Your task to perform on an android device: Go to accessibility settings Image 0: 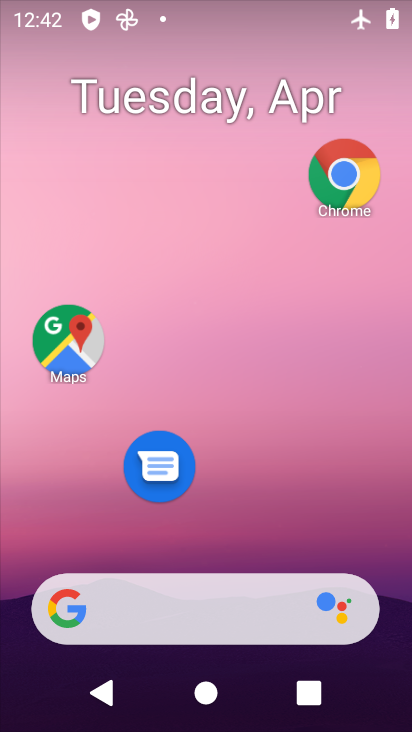
Step 0: drag from (258, 695) to (234, 125)
Your task to perform on an android device: Go to accessibility settings Image 1: 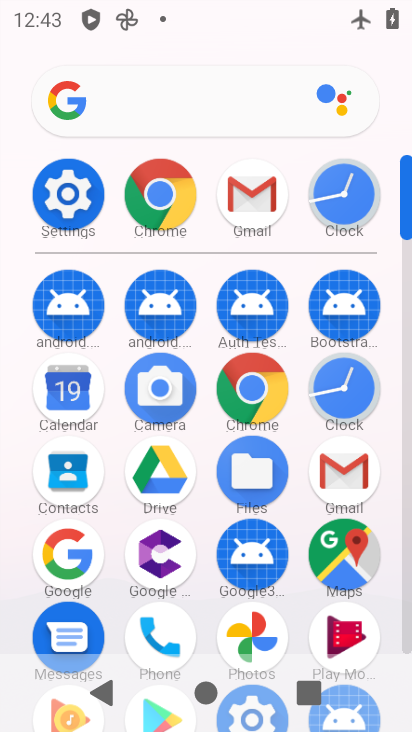
Step 1: click (73, 220)
Your task to perform on an android device: Go to accessibility settings Image 2: 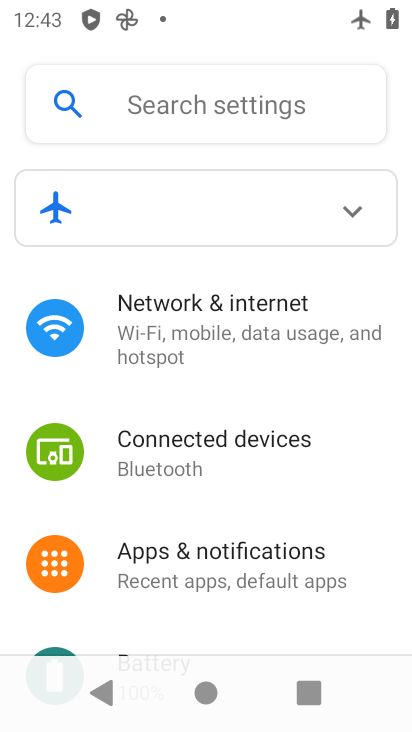
Step 2: drag from (180, 535) to (144, 254)
Your task to perform on an android device: Go to accessibility settings Image 3: 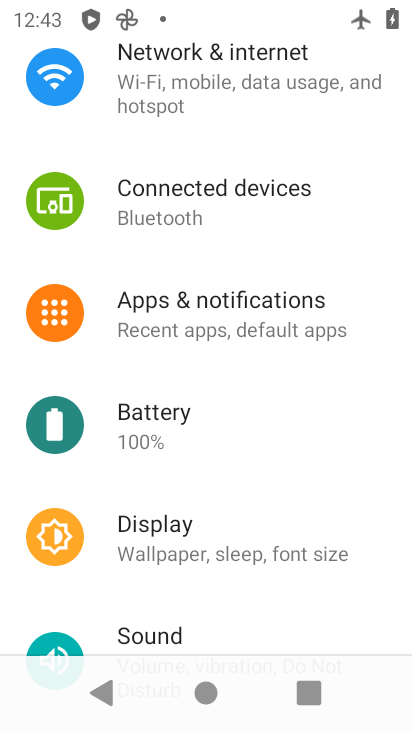
Step 3: drag from (159, 490) to (131, 309)
Your task to perform on an android device: Go to accessibility settings Image 4: 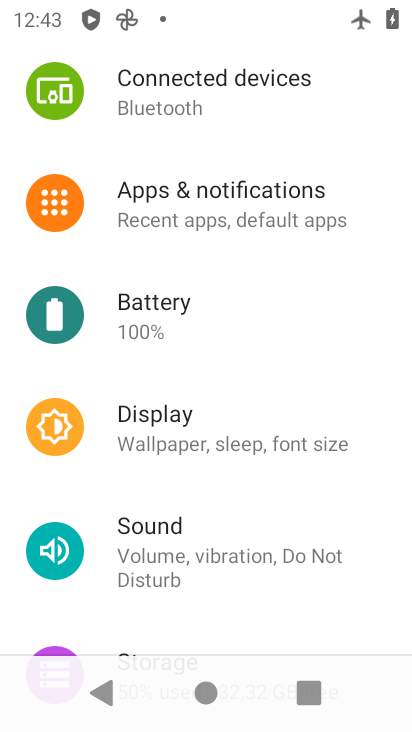
Step 4: drag from (182, 537) to (189, 163)
Your task to perform on an android device: Go to accessibility settings Image 5: 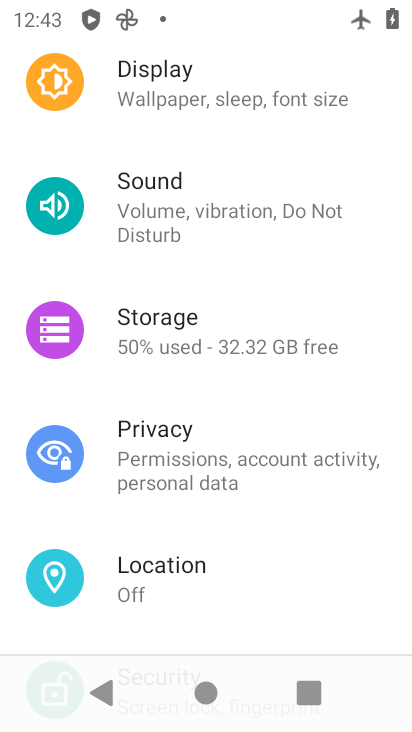
Step 5: drag from (178, 493) to (151, 227)
Your task to perform on an android device: Go to accessibility settings Image 6: 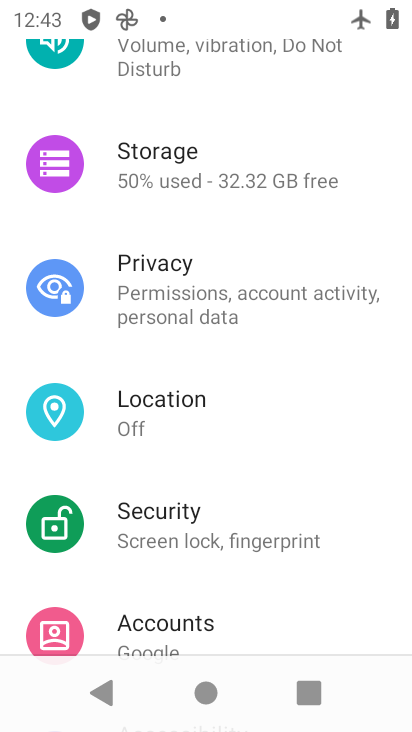
Step 6: drag from (172, 522) to (127, 298)
Your task to perform on an android device: Go to accessibility settings Image 7: 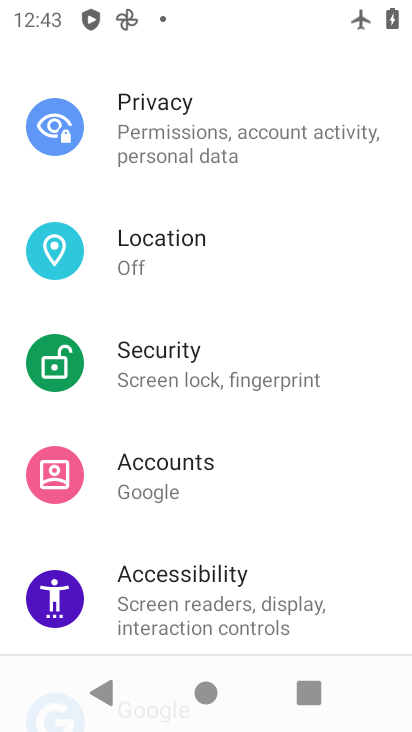
Step 7: click (211, 610)
Your task to perform on an android device: Go to accessibility settings Image 8: 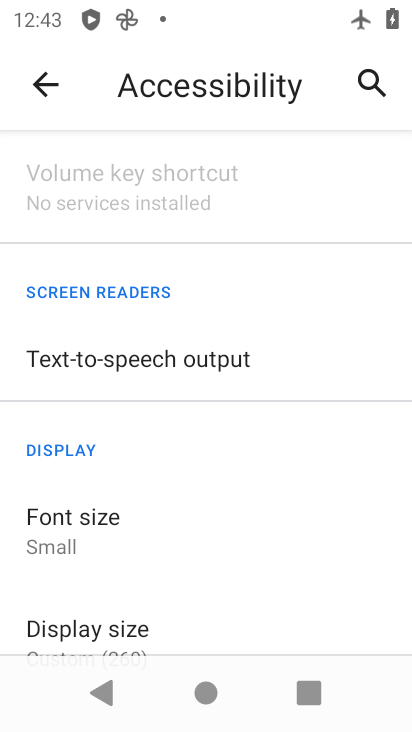
Step 8: task complete